Your task to perform on an android device: Search for seafood restaurants on Google Maps Image 0: 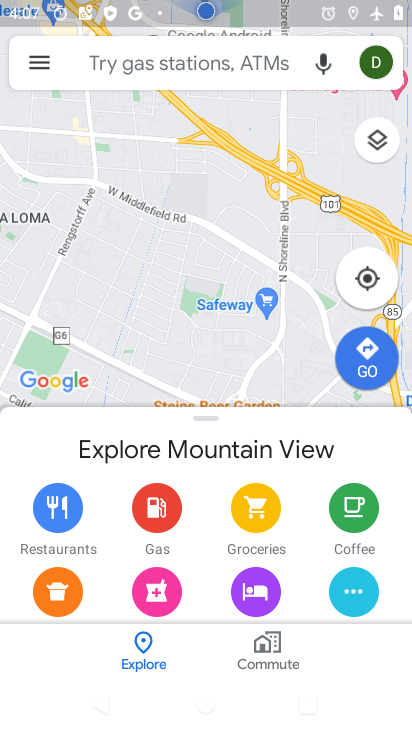
Step 0: press home button
Your task to perform on an android device: Search for seafood restaurants on Google Maps Image 1: 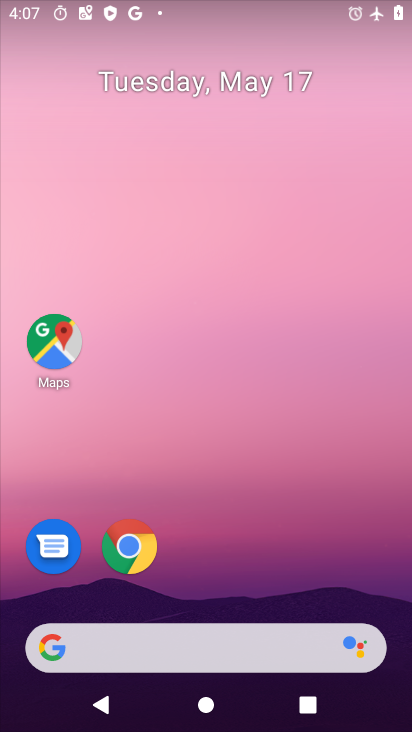
Step 1: click (45, 323)
Your task to perform on an android device: Search for seafood restaurants on Google Maps Image 2: 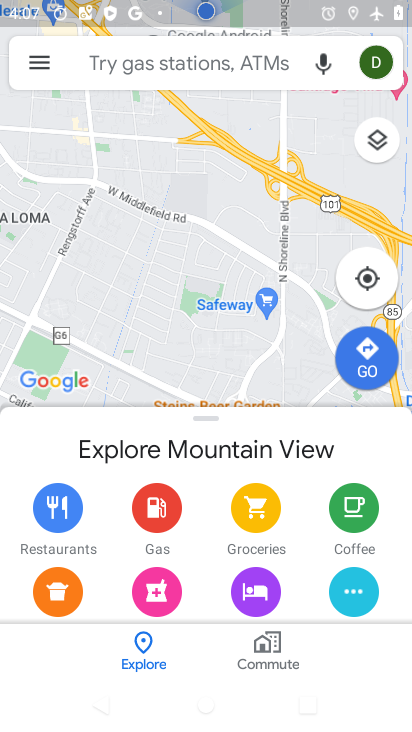
Step 2: click (111, 62)
Your task to perform on an android device: Search for seafood restaurants on Google Maps Image 3: 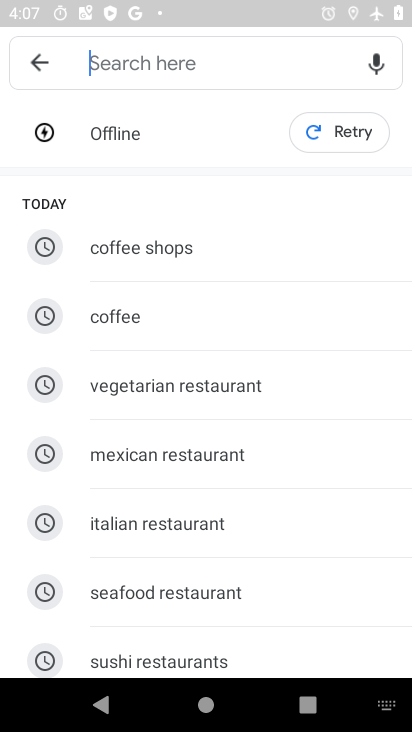
Step 3: type "seafood restaurants"
Your task to perform on an android device: Search for seafood restaurants on Google Maps Image 4: 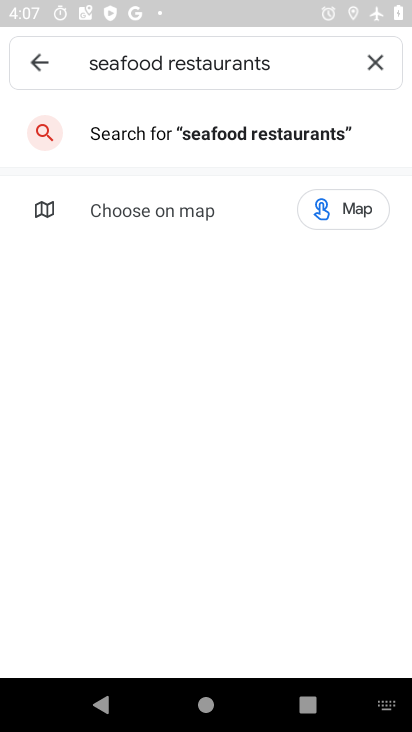
Step 4: click (273, 134)
Your task to perform on an android device: Search for seafood restaurants on Google Maps Image 5: 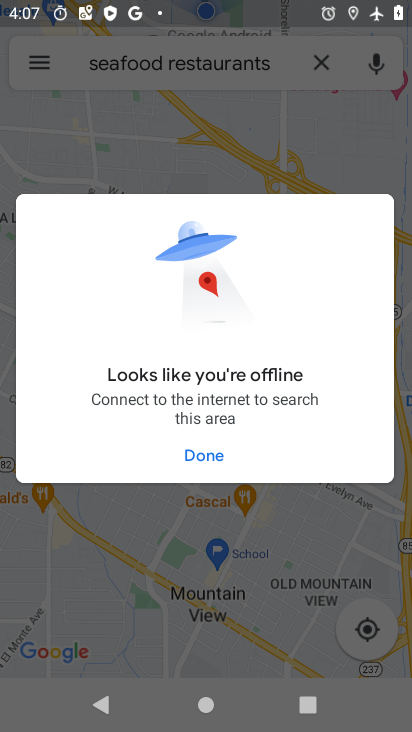
Step 5: task complete